Your task to perform on an android device: Open wifi settings Image 0: 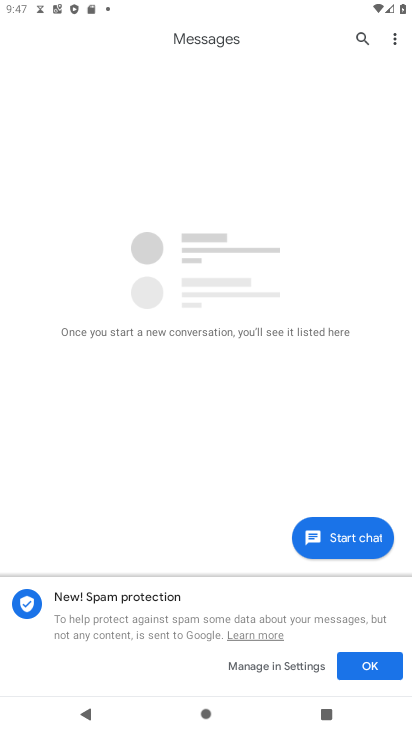
Step 0: press home button
Your task to perform on an android device: Open wifi settings Image 1: 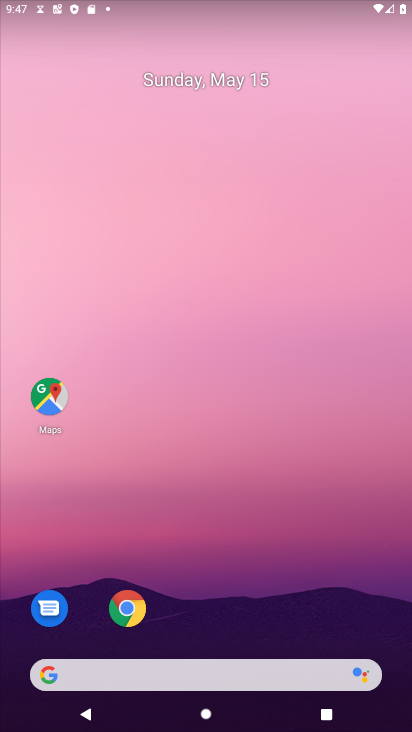
Step 1: drag from (292, 581) to (229, 10)
Your task to perform on an android device: Open wifi settings Image 2: 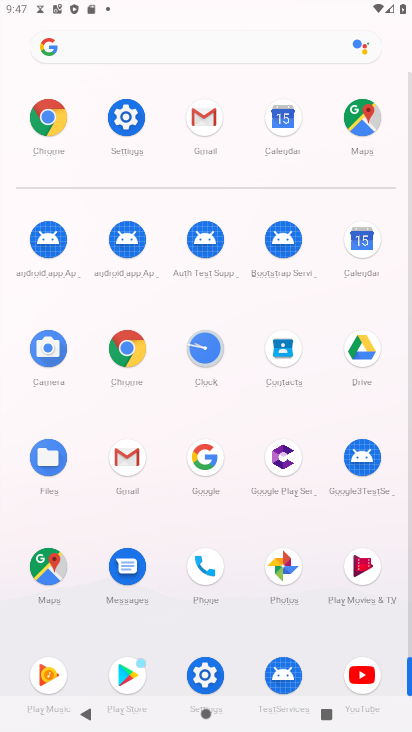
Step 2: click (126, 119)
Your task to perform on an android device: Open wifi settings Image 3: 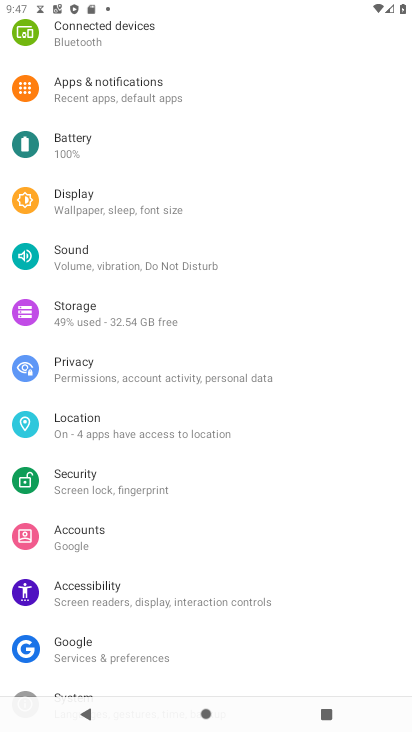
Step 3: drag from (157, 110) to (80, 596)
Your task to perform on an android device: Open wifi settings Image 4: 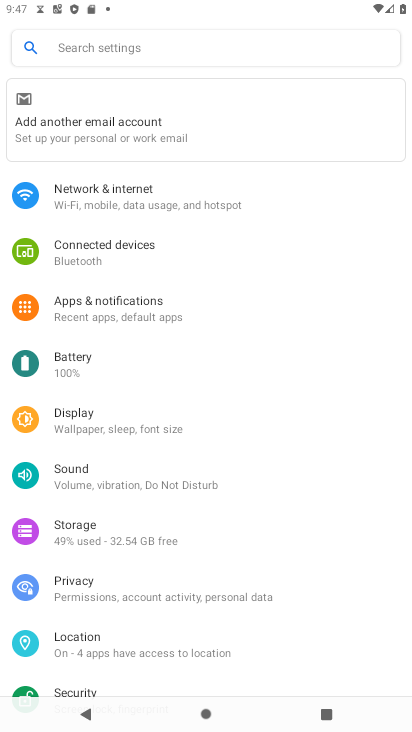
Step 4: click (126, 191)
Your task to perform on an android device: Open wifi settings Image 5: 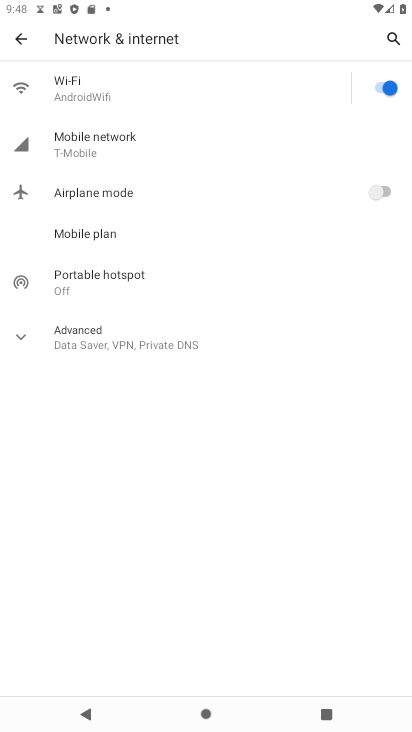
Step 5: click (121, 70)
Your task to perform on an android device: Open wifi settings Image 6: 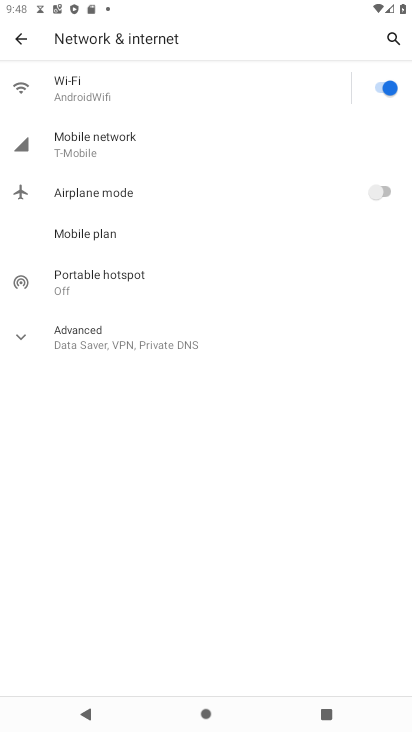
Step 6: click (121, 84)
Your task to perform on an android device: Open wifi settings Image 7: 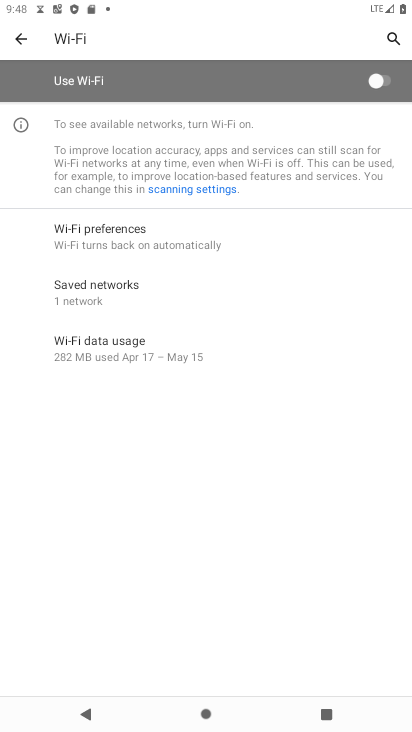
Step 7: task complete